Your task to perform on an android device: What's the news in Bolivia? Image 0: 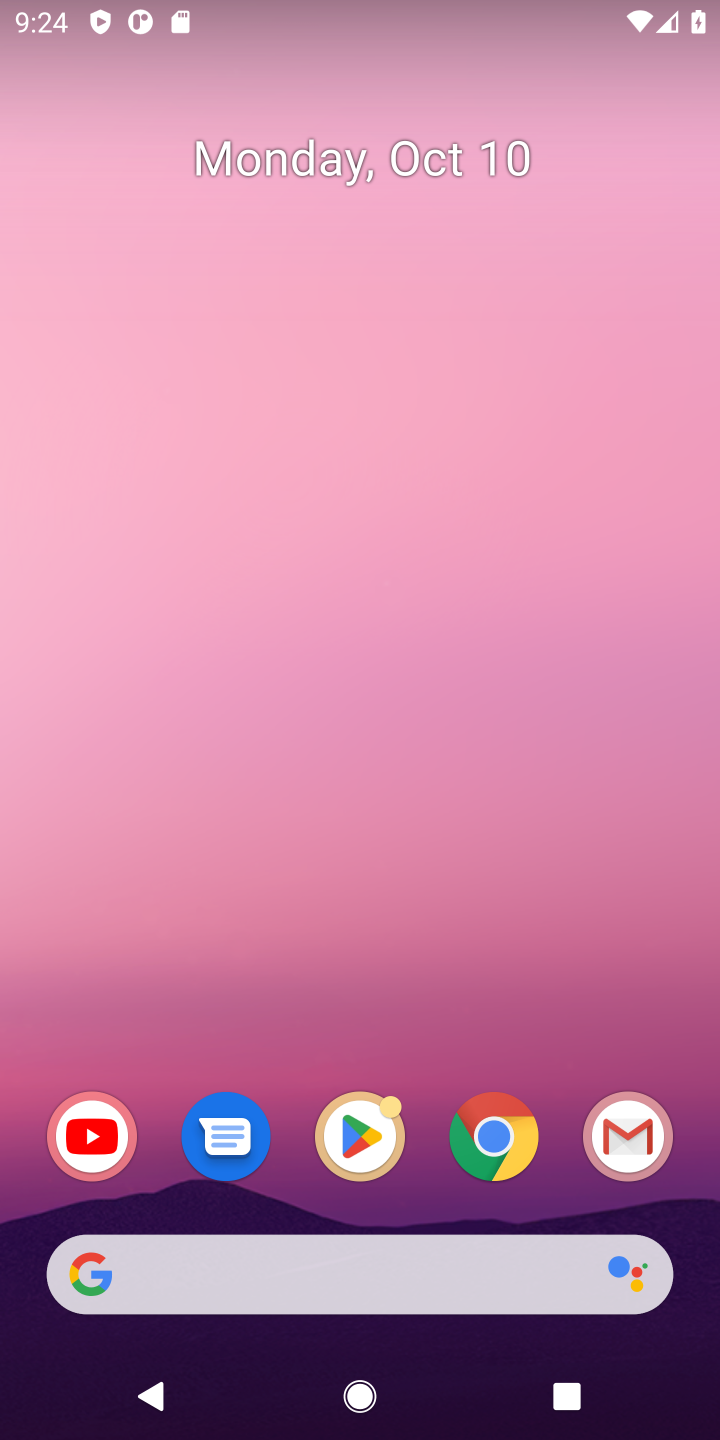
Step 0: click (499, 1144)
Your task to perform on an android device: What's the news in Bolivia? Image 1: 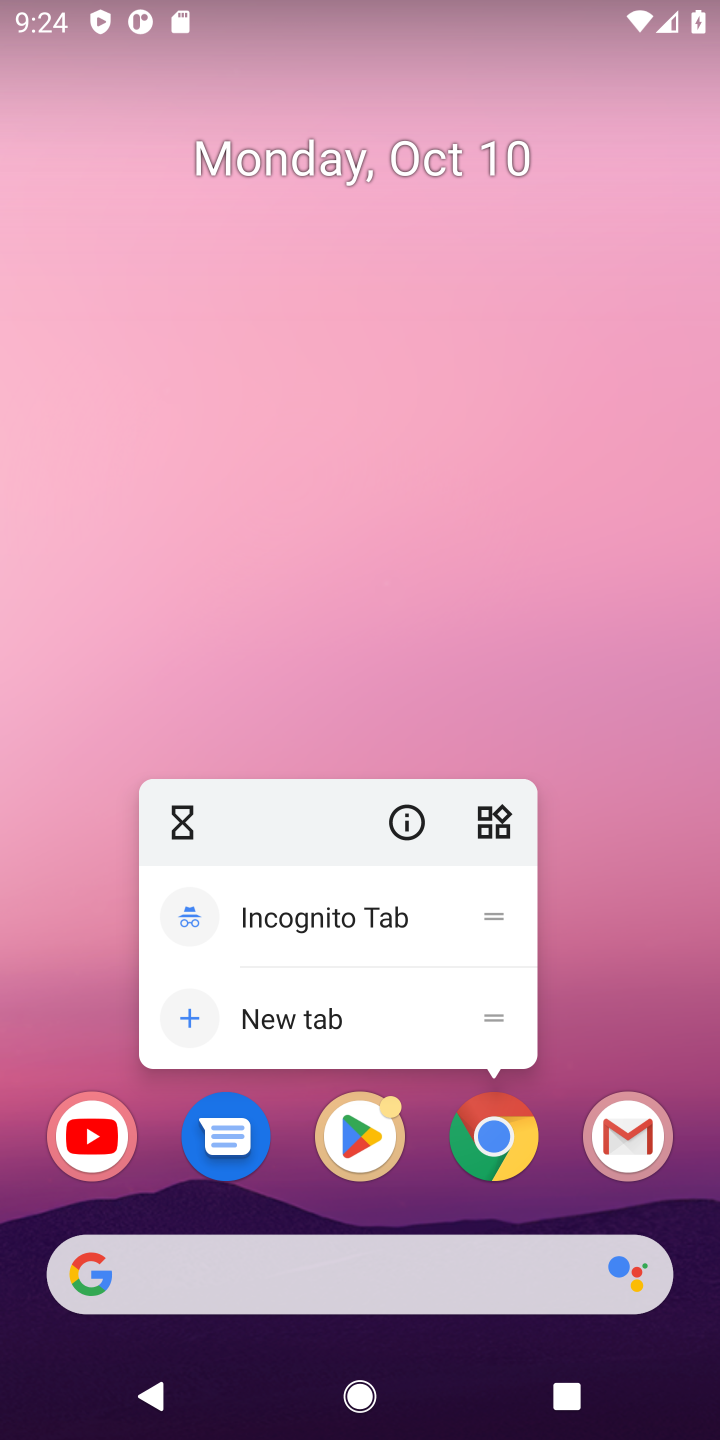
Step 1: click (510, 1144)
Your task to perform on an android device: What's the news in Bolivia? Image 2: 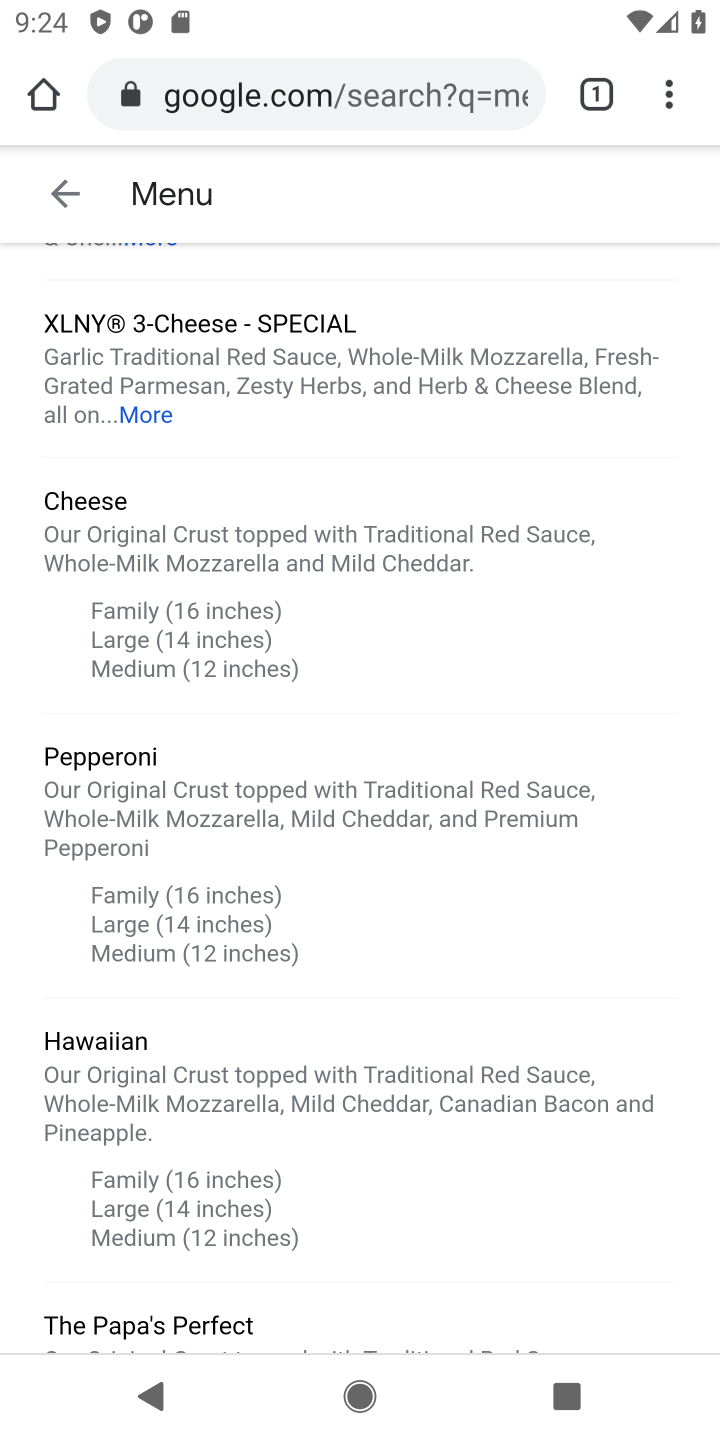
Step 2: click (252, 85)
Your task to perform on an android device: What's the news in Bolivia? Image 3: 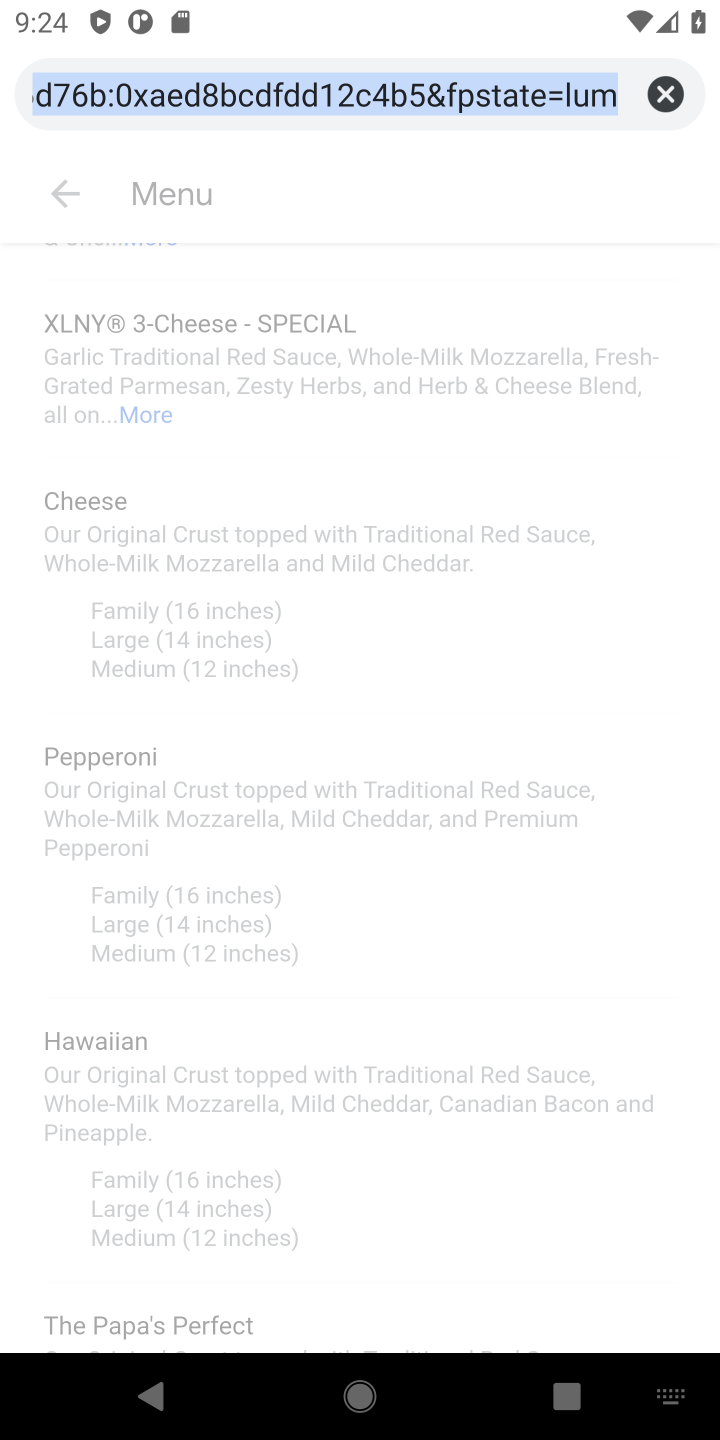
Step 3: type "Bolivia"
Your task to perform on an android device: What's the news in Bolivia? Image 4: 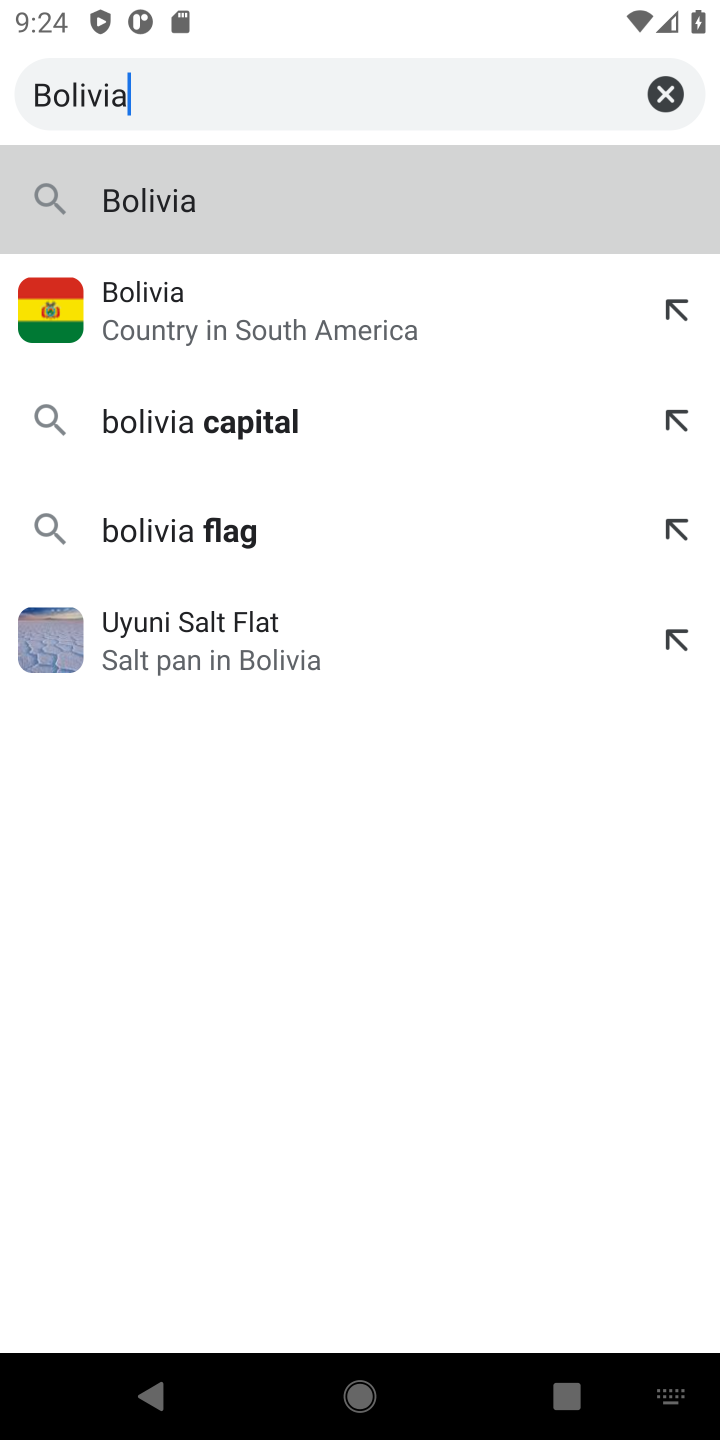
Step 4: click (301, 333)
Your task to perform on an android device: What's the news in Bolivia? Image 5: 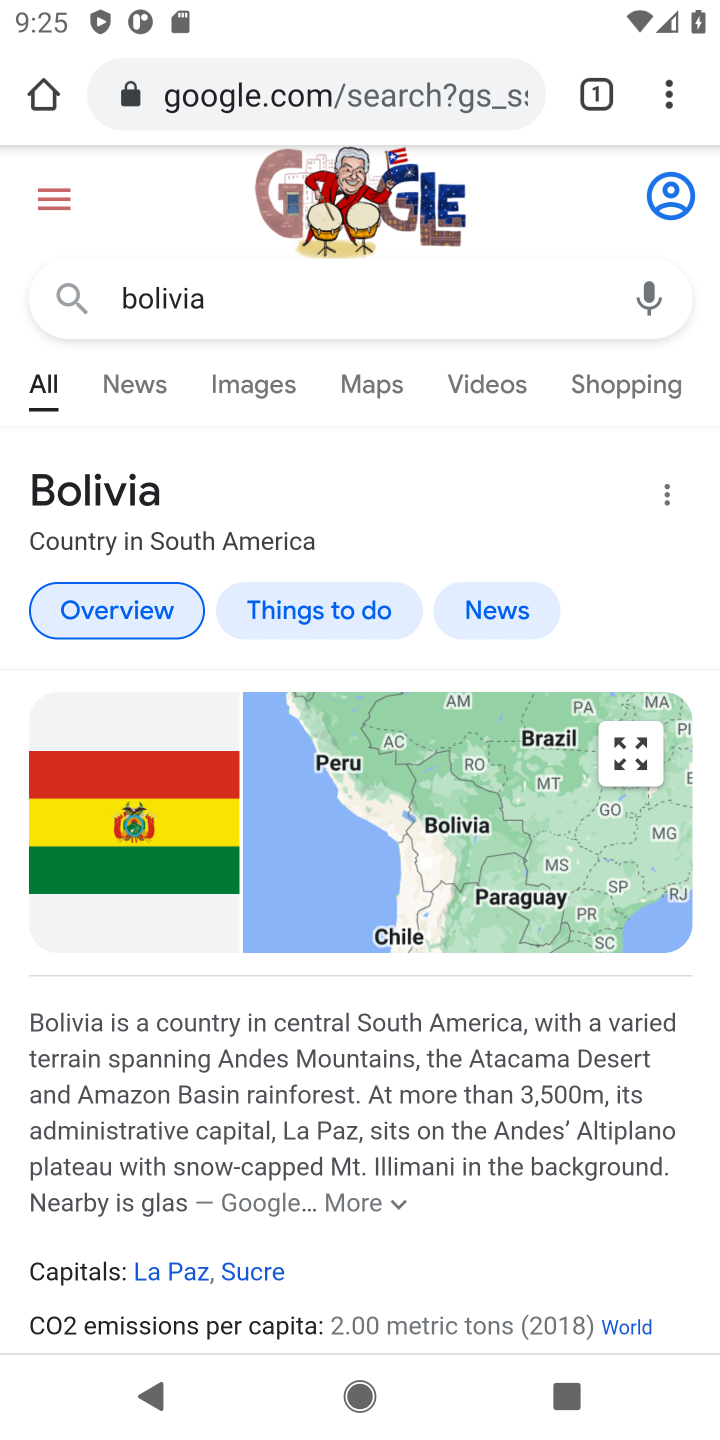
Step 5: click (132, 388)
Your task to perform on an android device: What's the news in Bolivia? Image 6: 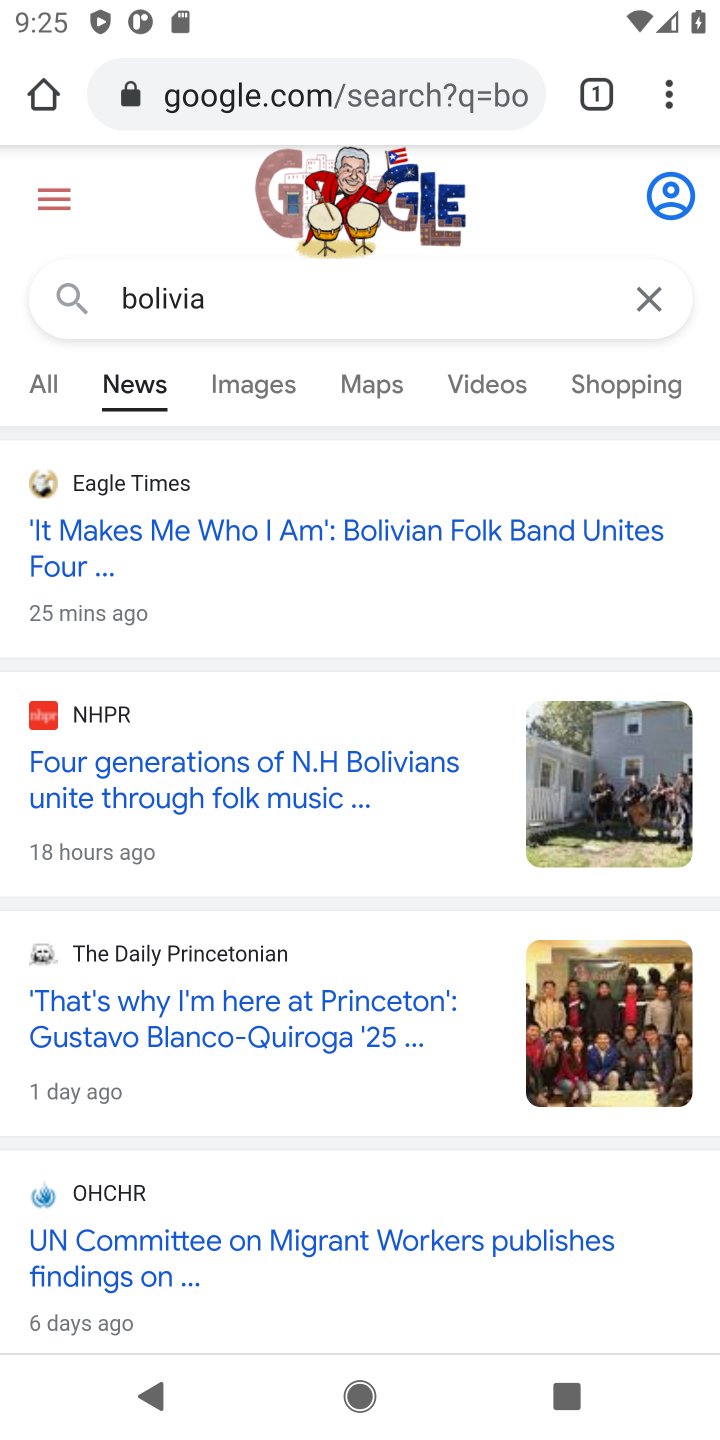
Step 6: task complete